Your task to perform on an android device: empty trash in the gmail app Image 0: 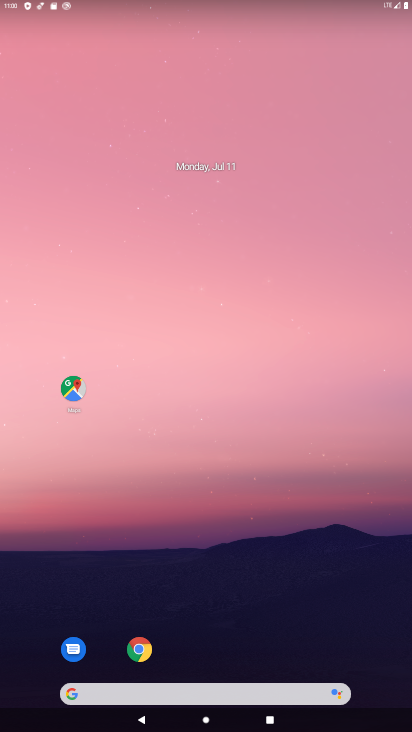
Step 0: drag from (291, 633) to (220, 125)
Your task to perform on an android device: empty trash in the gmail app Image 1: 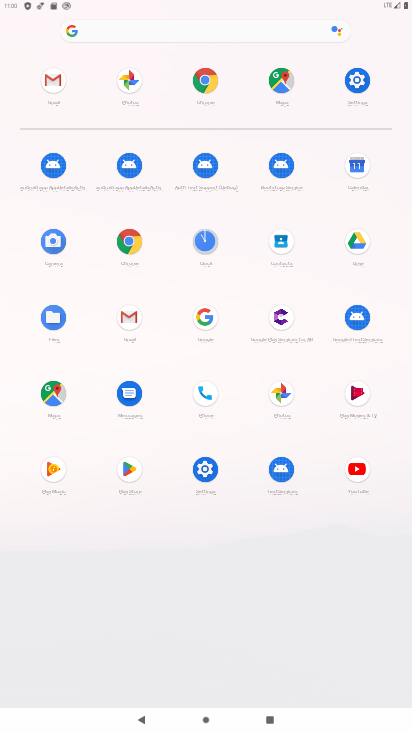
Step 1: click (45, 73)
Your task to perform on an android device: empty trash in the gmail app Image 2: 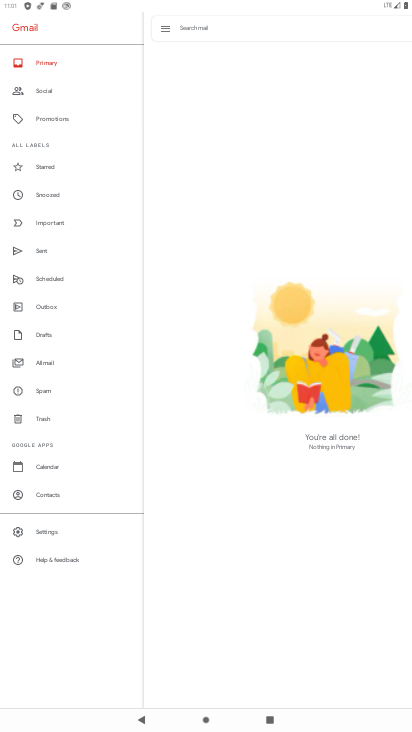
Step 2: click (43, 423)
Your task to perform on an android device: empty trash in the gmail app Image 3: 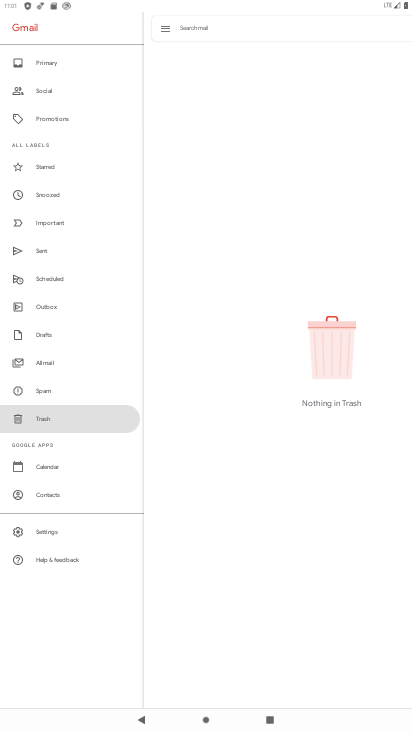
Step 3: task complete